Your task to perform on an android device: Find coffee shops on Maps Image 0: 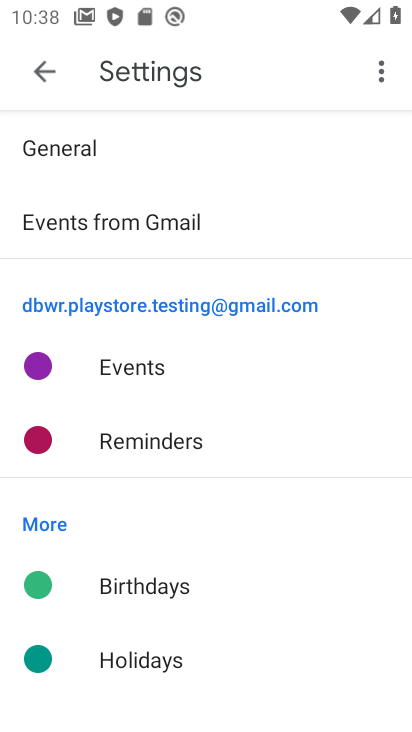
Step 0: press home button
Your task to perform on an android device: Find coffee shops on Maps Image 1: 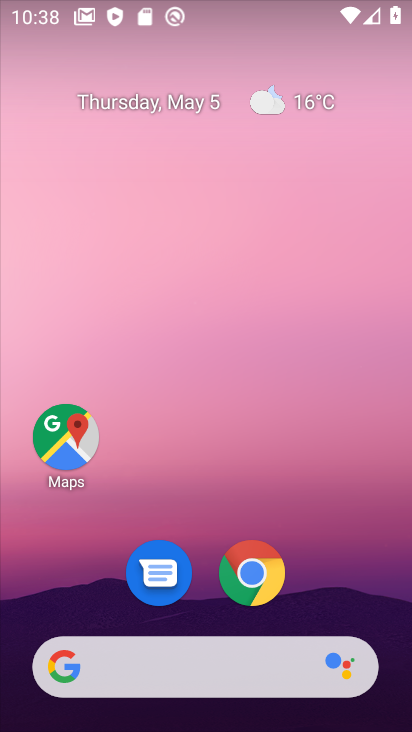
Step 1: click (233, 539)
Your task to perform on an android device: Find coffee shops on Maps Image 2: 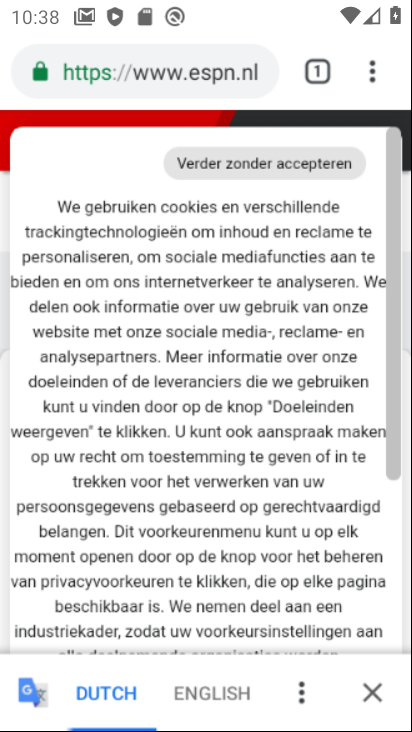
Step 2: press home button
Your task to perform on an android device: Find coffee shops on Maps Image 3: 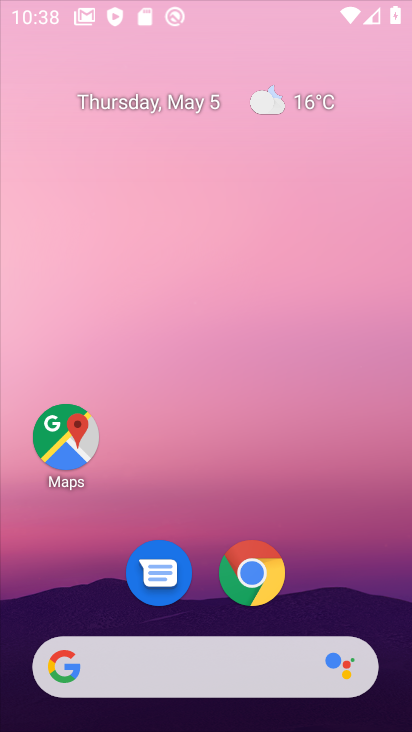
Step 3: click (56, 460)
Your task to perform on an android device: Find coffee shops on Maps Image 4: 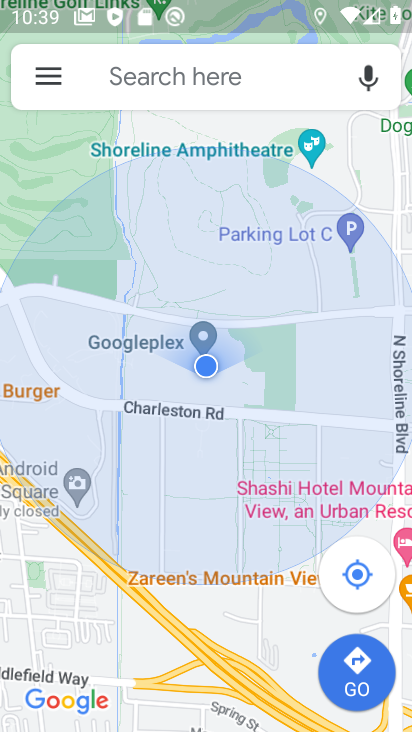
Step 4: click (149, 84)
Your task to perform on an android device: Find coffee shops on Maps Image 5: 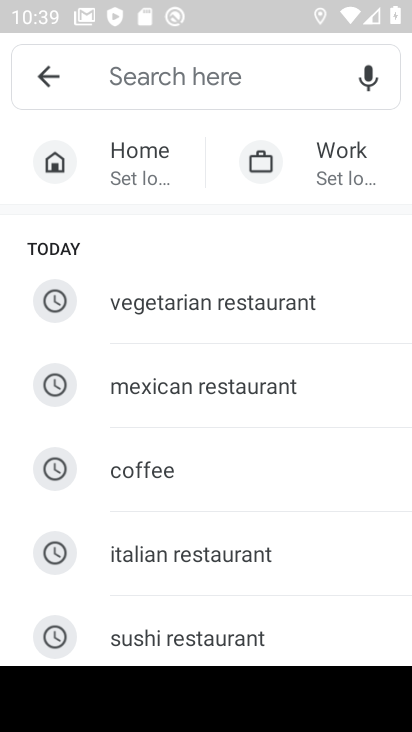
Step 5: click (197, 454)
Your task to perform on an android device: Find coffee shops on Maps Image 6: 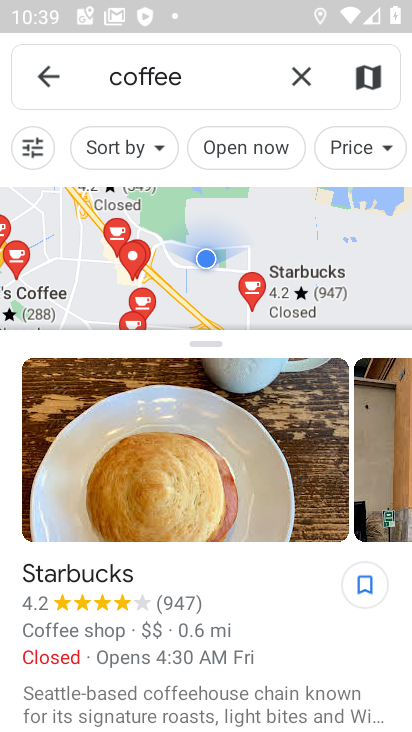
Step 6: task complete